Your task to perform on an android device: open a bookmark in the chrome app Image 0: 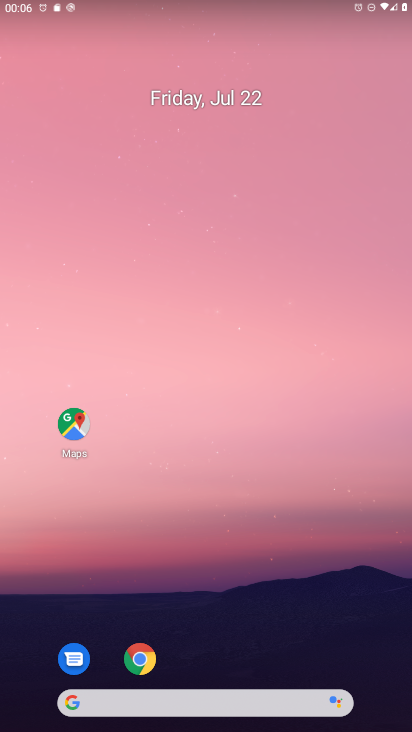
Step 0: click (138, 656)
Your task to perform on an android device: open a bookmark in the chrome app Image 1: 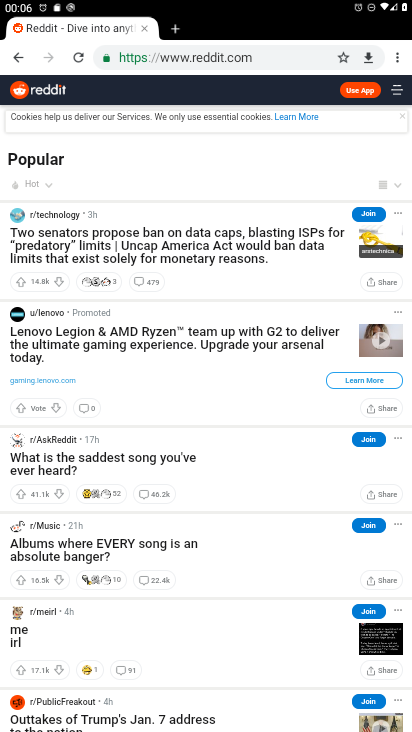
Step 1: click (397, 56)
Your task to perform on an android device: open a bookmark in the chrome app Image 2: 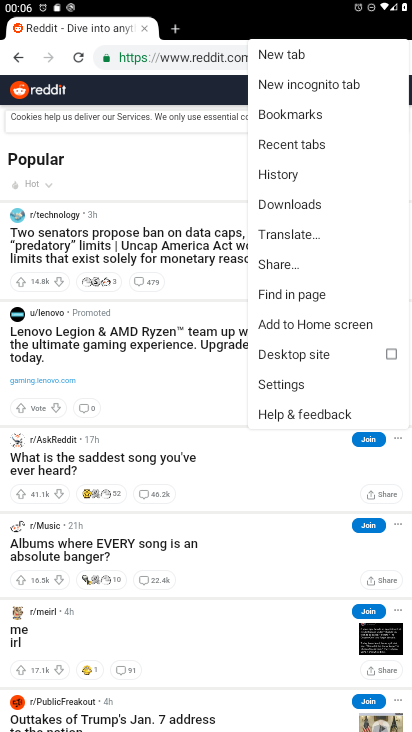
Step 2: click (309, 117)
Your task to perform on an android device: open a bookmark in the chrome app Image 3: 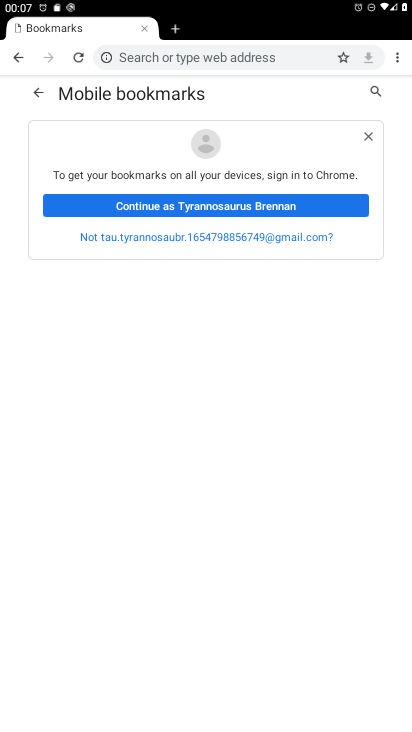
Step 3: task complete